Your task to perform on an android device: change notifications settings Image 0: 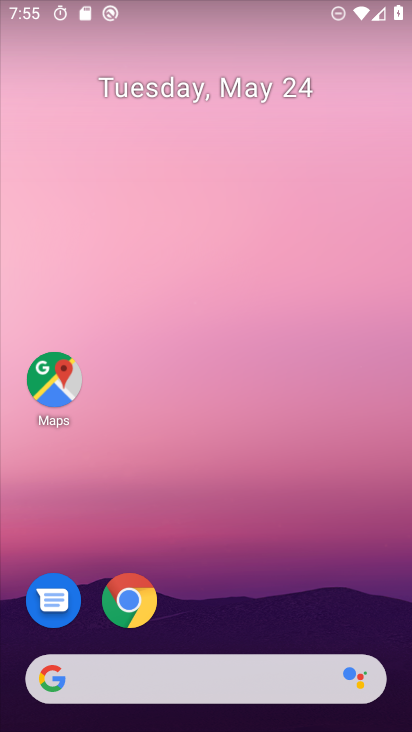
Step 0: drag from (252, 556) to (315, 17)
Your task to perform on an android device: change notifications settings Image 1: 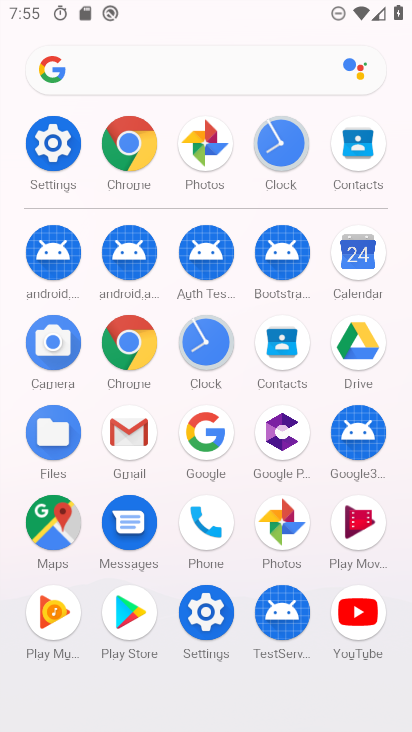
Step 1: click (61, 142)
Your task to perform on an android device: change notifications settings Image 2: 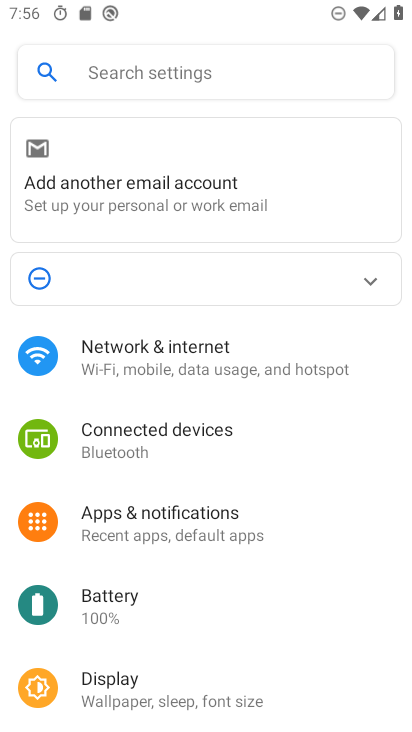
Step 2: click (146, 520)
Your task to perform on an android device: change notifications settings Image 3: 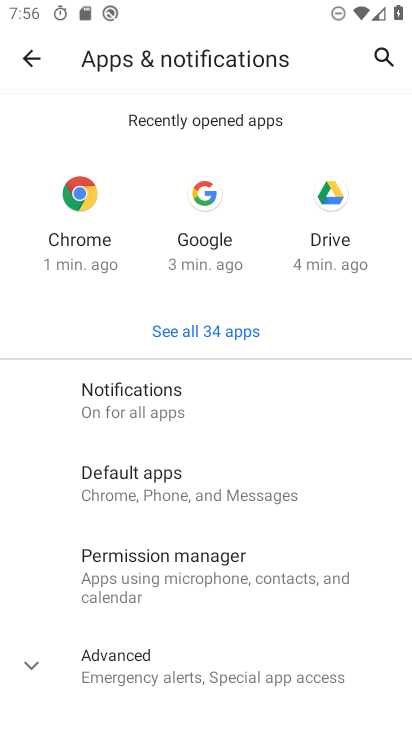
Step 3: click (163, 407)
Your task to perform on an android device: change notifications settings Image 4: 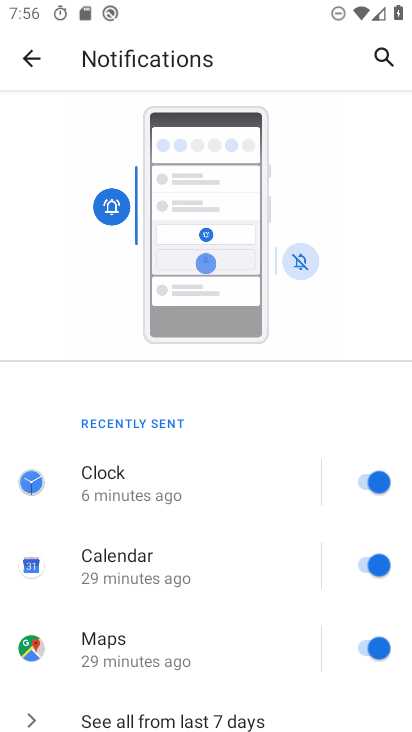
Step 4: drag from (227, 635) to (279, 150)
Your task to perform on an android device: change notifications settings Image 5: 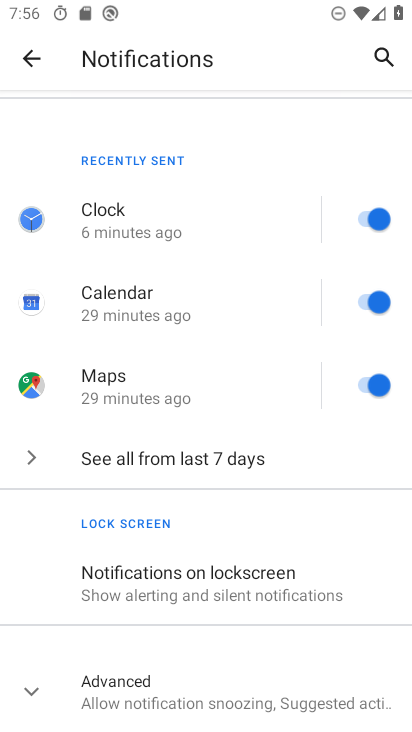
Step 5: click (204, 671)
Your task to perform on an android device: change notifications settings Image 6: 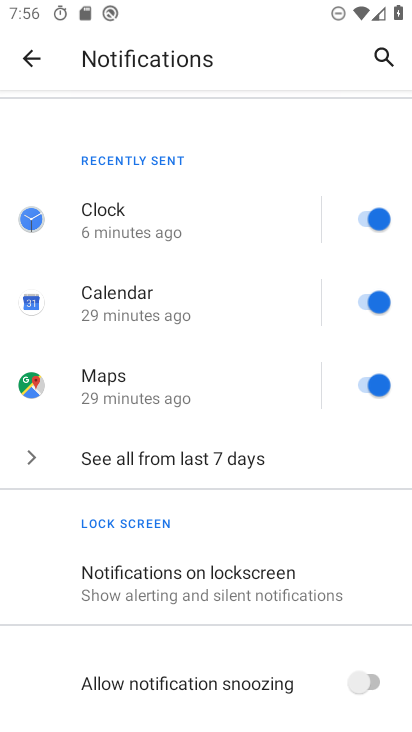
Step 6: drag from (183, 657) to (226, 283)
Your task to perform on an android device: change notifications settings Image 7: 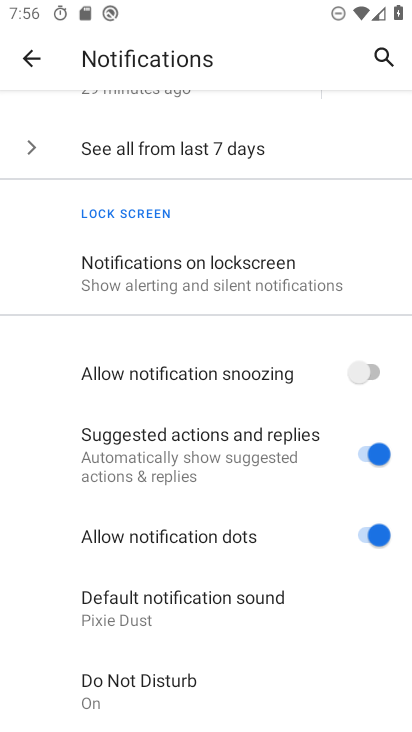
Step 7: click (363, 366)
Your task to perform on an android device: change notifications settings Image 8: 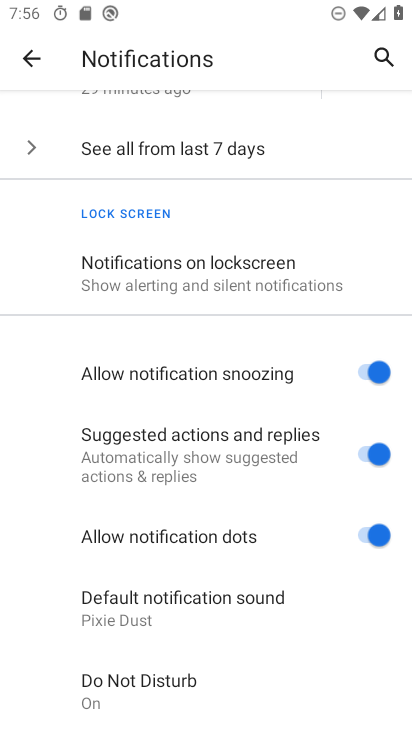
Step 8: task complete